Your task to perform on an android device: see creations saved in the google photos Image 0: 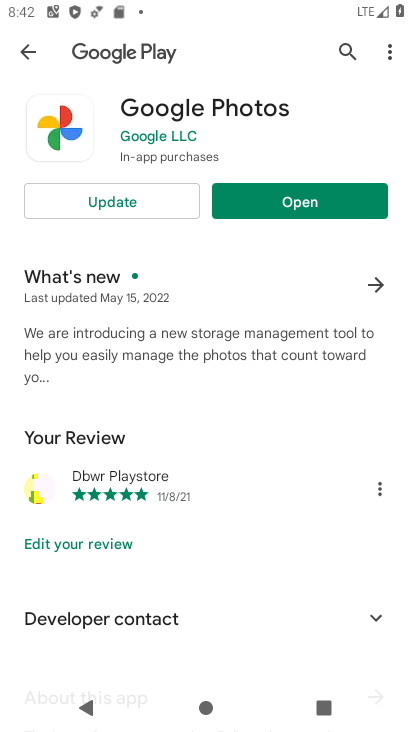
Step 0: click (320, 193)
Your task to perform on an android device: see creations saved in the google photos Image 1: 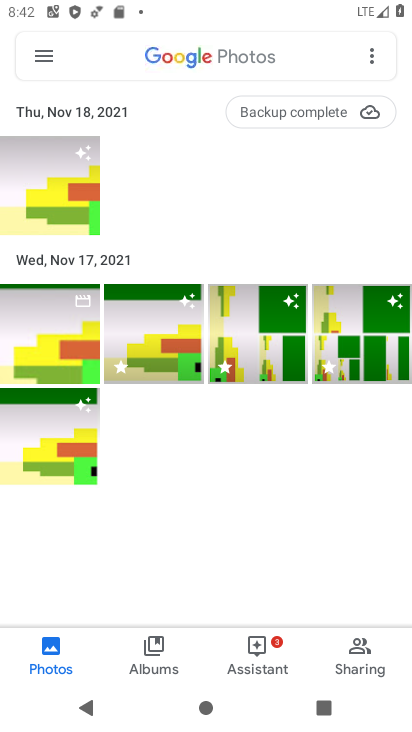
Step 1: click (272, 52)
Your task to perform on an android device: see creations saved in the google photos Image 2: 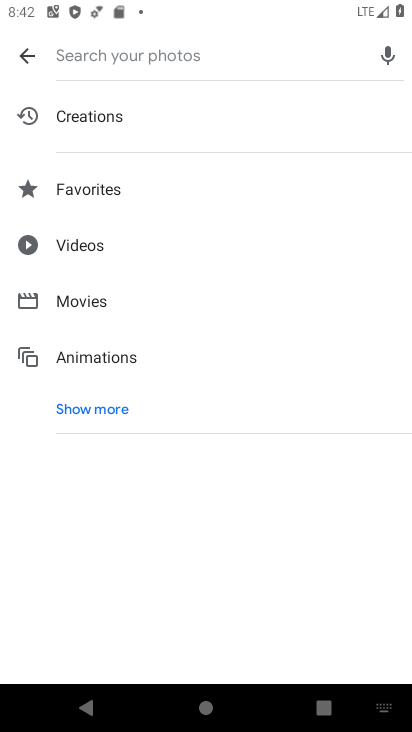
Step 2: click (79, 402)
Your task to perform on an android device: see creations saved in the google photos Image 3: 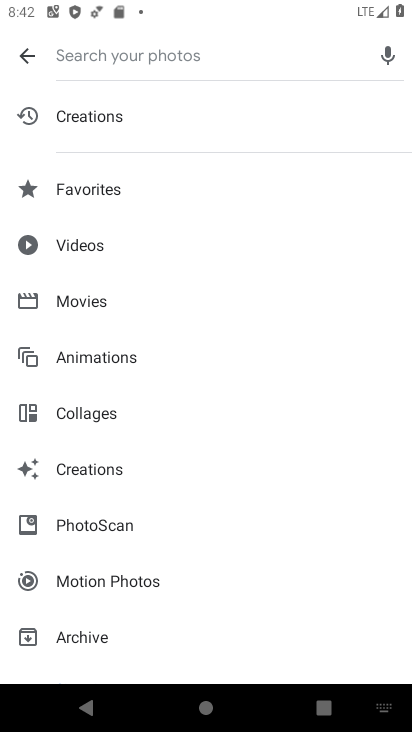
Step 3: click (75, 466)
Your task to perform on an android device: see creations saved in the google photos Image 4: 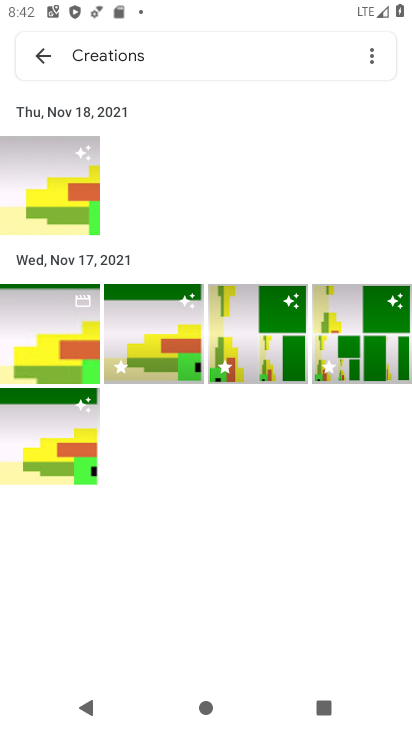
Step 4: task complete